Your task to perform on an android device: change your default location settings in chrome Image 0: 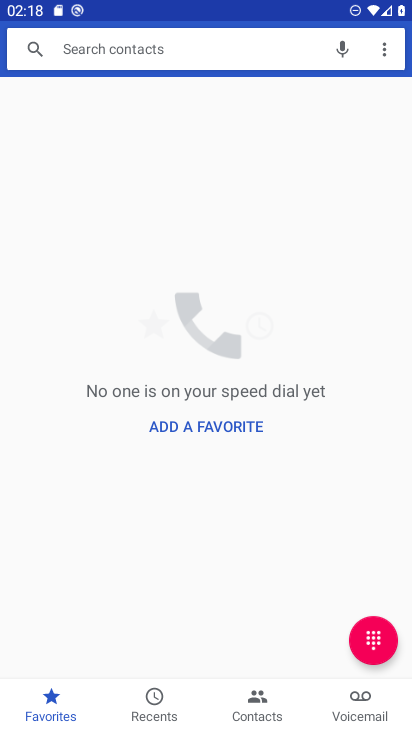
Step 0: click (250, 682)
Your task to perform on an android device: change your default location settings in chrome Image 1: 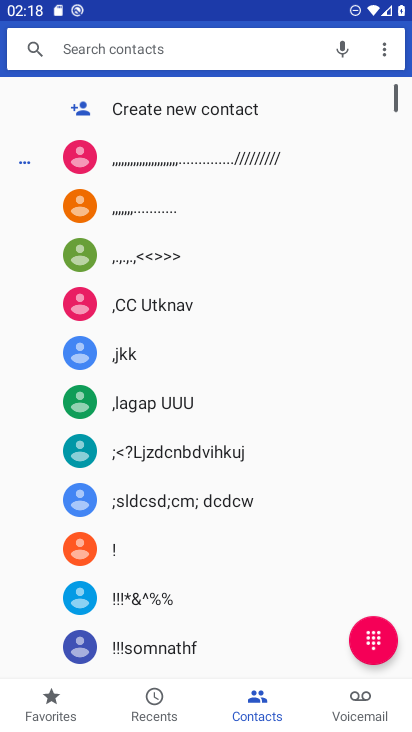
Step 1: press home button
Your task to perform on an android device: change your default location settings in chrome Image 2: 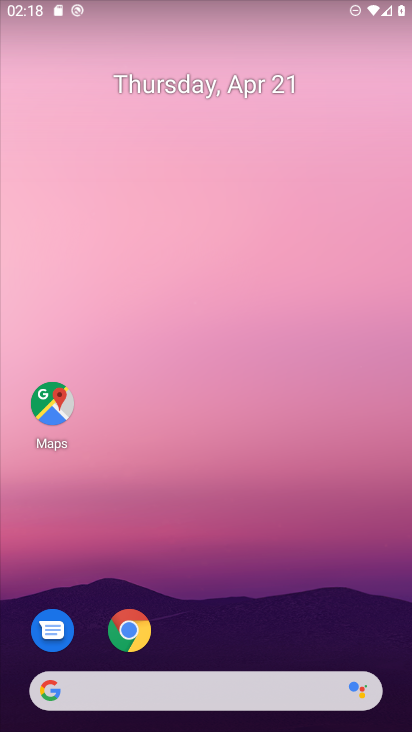
Step 2: drag from (284, 633) to (199, 221)
Your task to perform on an android device: change your default location settings in chrome Image 3: 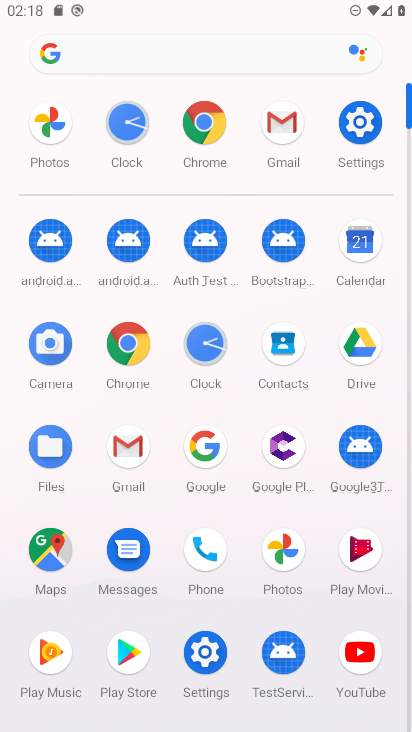
Step 3: click (178, 128)
Your task to perform on an android device: change your default location settings in chrome Image 4: 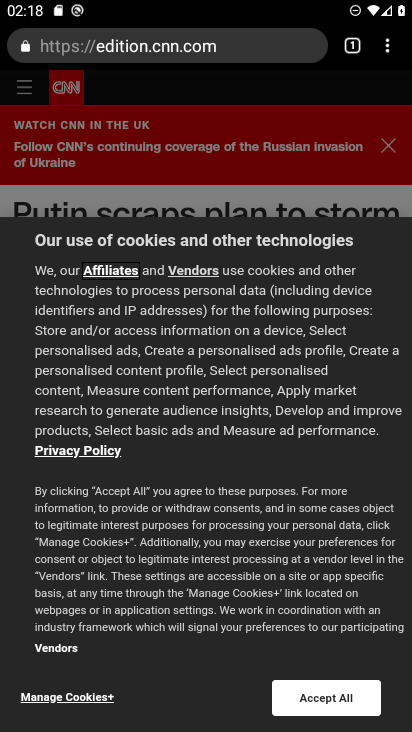
Step 4: click (379, 52)
Your task to perform on an android device: change your default location settings in chrome Image 5: 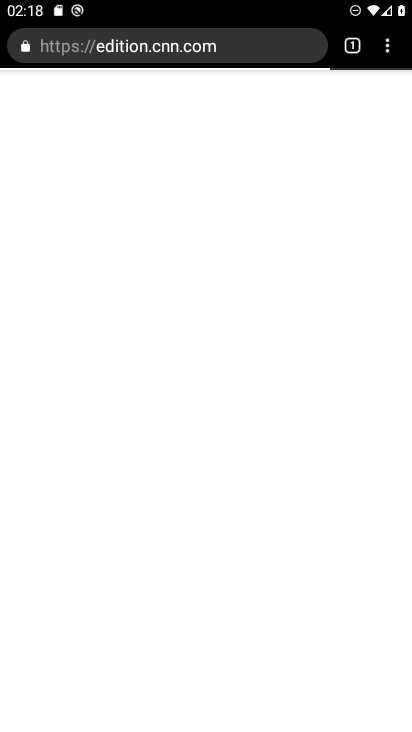
Step 5: click (384, 48)
Your task to perform on an android device: change your default location settings in chrome Image 6: 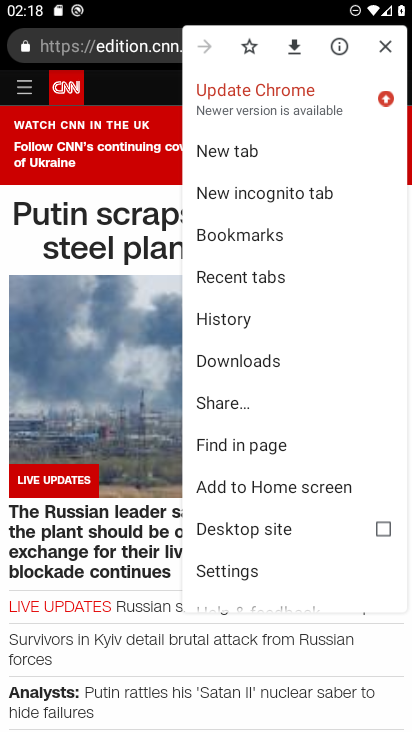
Step 6: click (270, 578)
Your task to perform on an android device: change your default location settings in chrome Image 7: 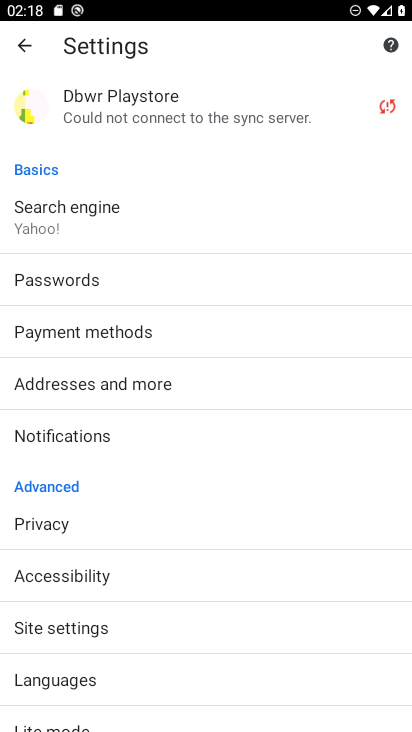
Step 7: click (176, 378)
Your task to perform on an android device: change your default location settings in chrome Image 8: 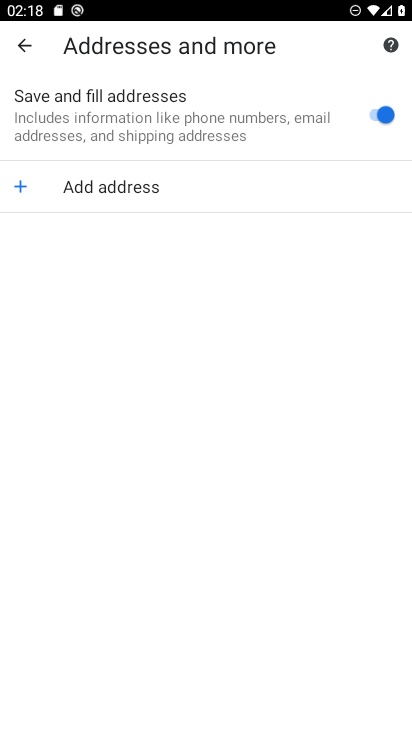
Step 8: task complete